Your task to perform on an android device: open app "AliExpress" (install if not already installed) and enter user name: "orangutan@inbox.com" and password: "Lyons" Image 0: 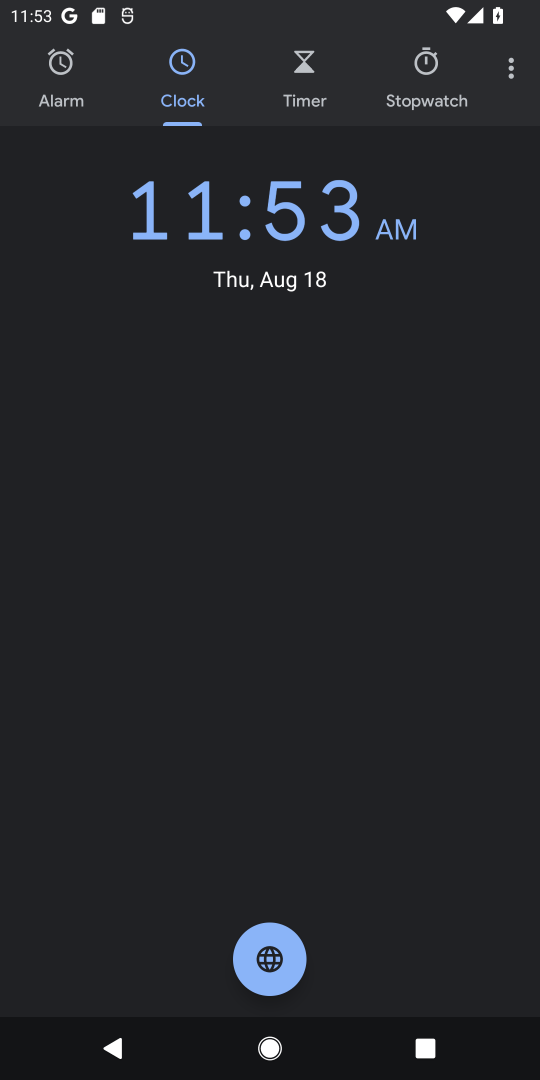
Step 0: press home button
Your task to perform on an android device: open app "AliExpress" (install if not already installed) and enter user name: "orangutan@inbox.com" and password: "Lyons" Image 1: 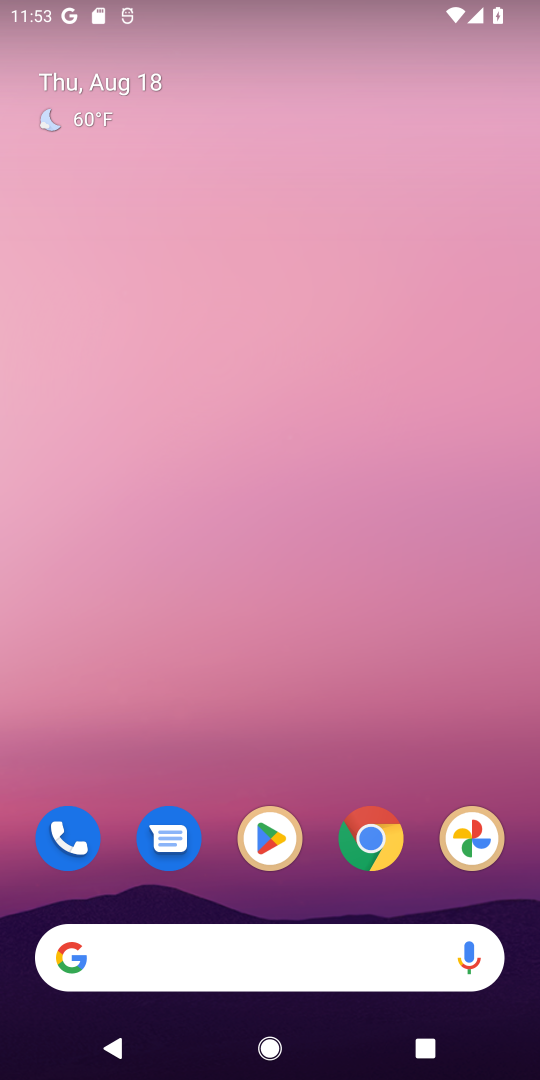
Step 1: click (256, 833)
Your task to perform on an android device: open app "AliExpress" (install if not already installed) and enter user name: "orangutan@inbox.com" and password: "Lyons" Image 2: 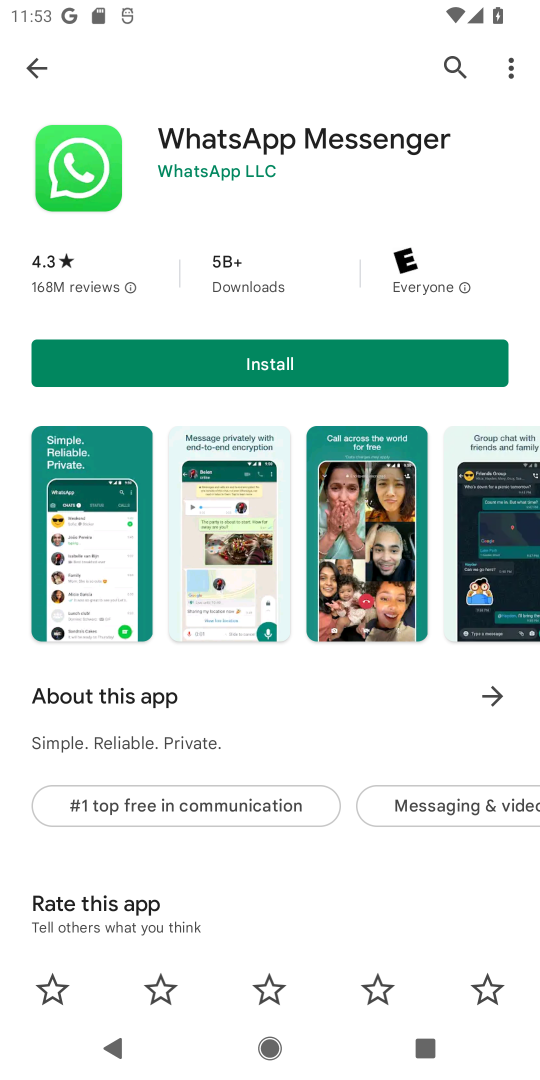
Step 2: click (443, 65)
Your task to perform on an android device: open app "AliExpress" (install if not already installed) and enter user name: "orangutan@inbox.com" and password: "Lyons" Image 3: 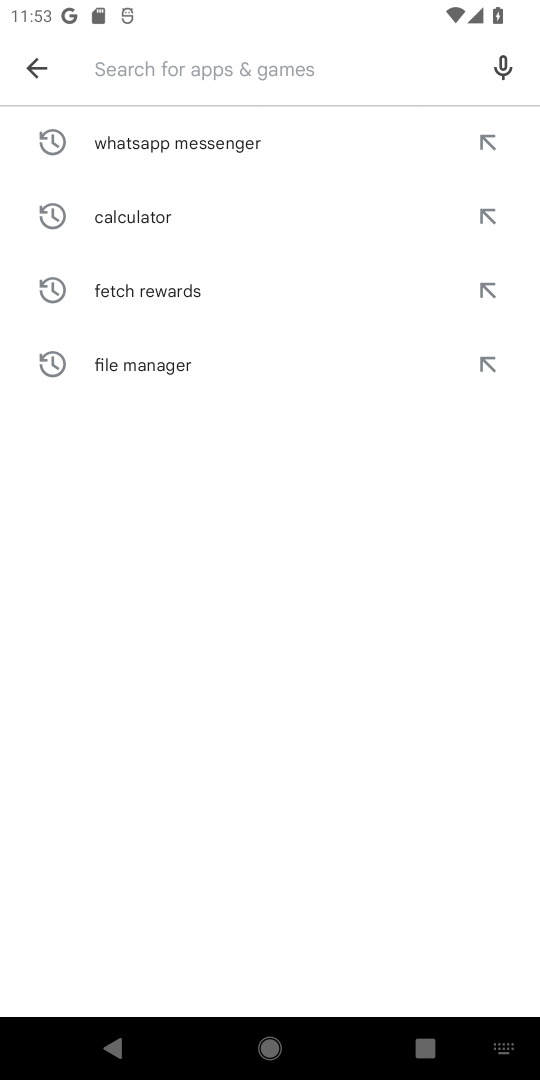
Step 3: type "AliExpress"
Your task to perform on an android device: open app "AliExpress" (install if not already installed) and enter user name: "orangutan@inbox.com" and password: "Lyons" Image 4: 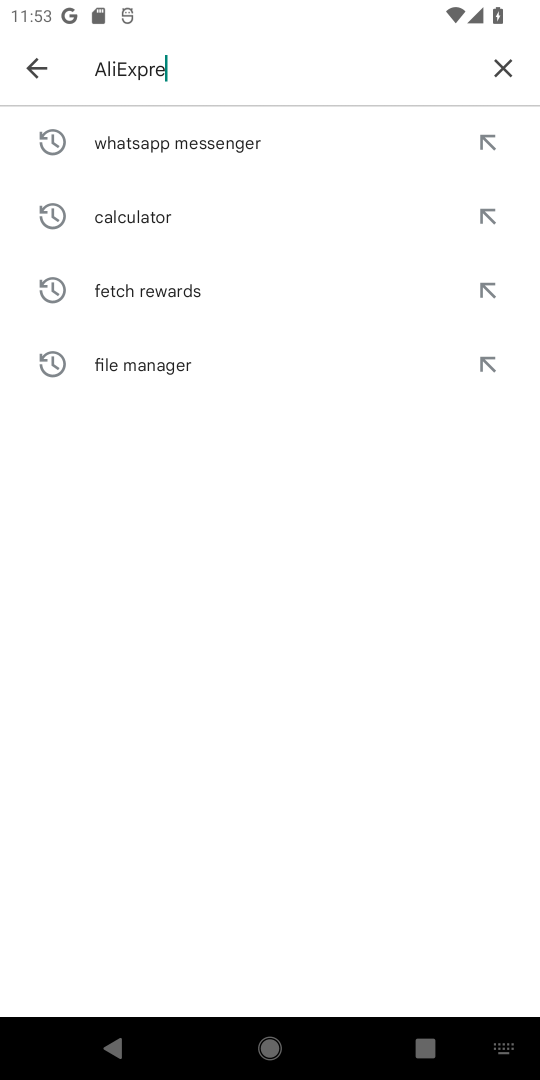
Step 4: type ""
Your task to perform on an android device: open app "AliExpress" (install if not already installed) and enter user name: "orangutan@inbox.com" and password: "Lyons" Image 5: 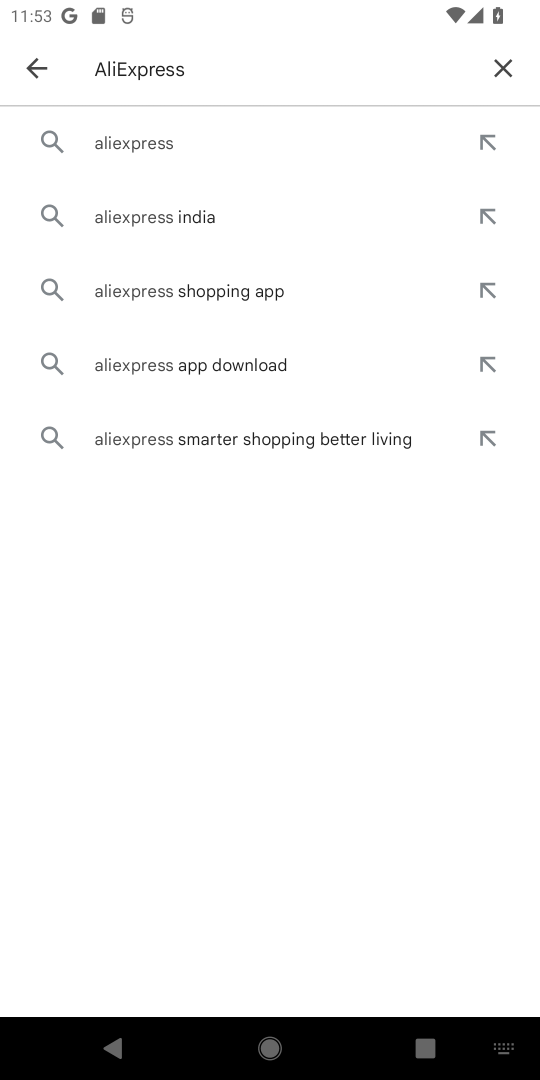
Step 5: click (113, 155)
Your task to perform on an android device: open app "AliExpress" (install if not already installed) and enter user name: "orangutan@inbox.com" and password: "Lyons" Image 6: 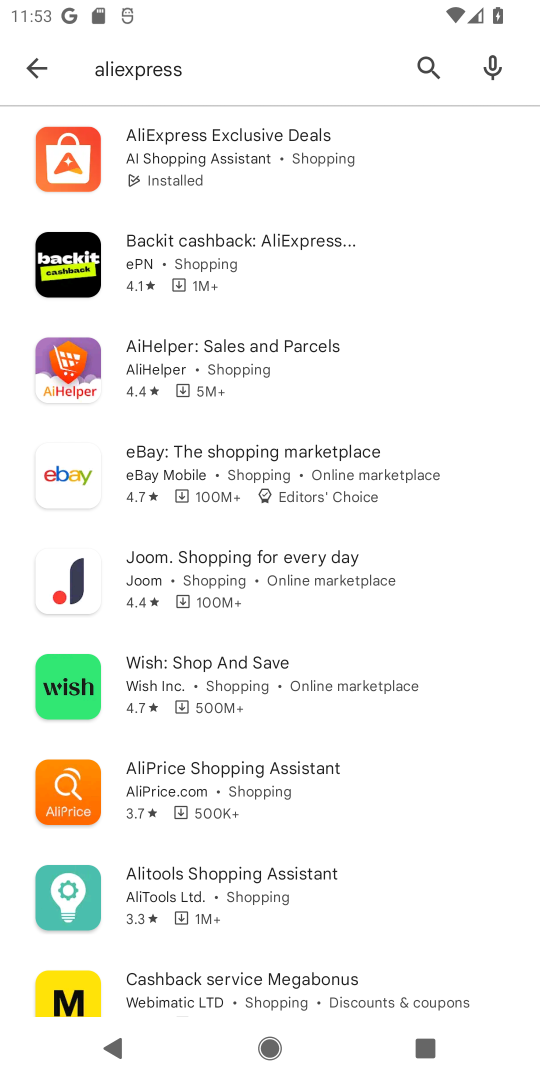
Step 6: click (236, 134)
Your task to perform on an android device: open app "AliExpress" (install if not already installed) and enter user name: "orangutan@inbox.com" and password: "Lyons" Image 7: 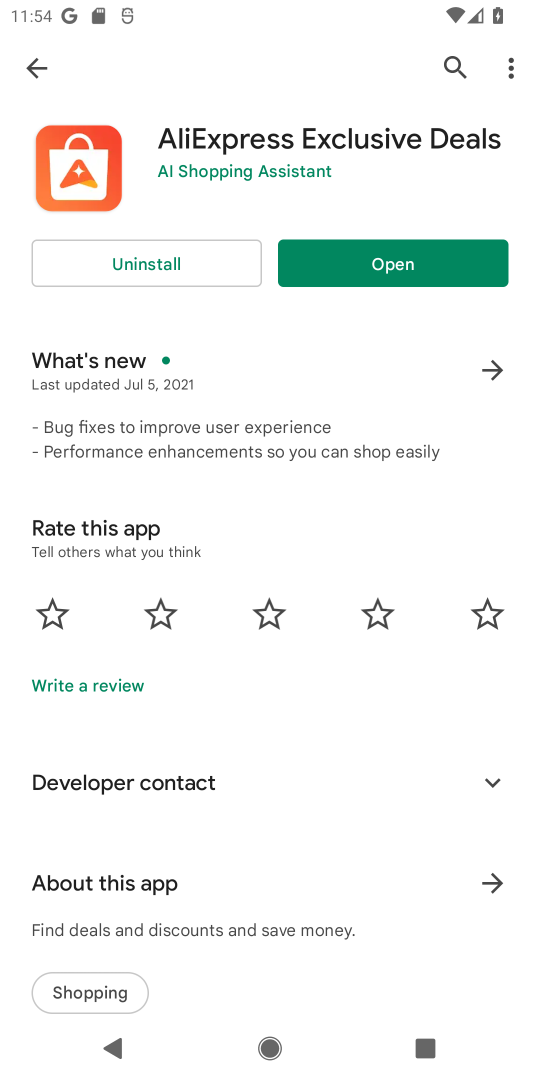
Step 7: click (393, 259)
Your task to perform on an android device: open app "AliExpress" (install if not already installed) and enter user name: "orangutan@inbox.com" and password: "Lyons" Image 8: 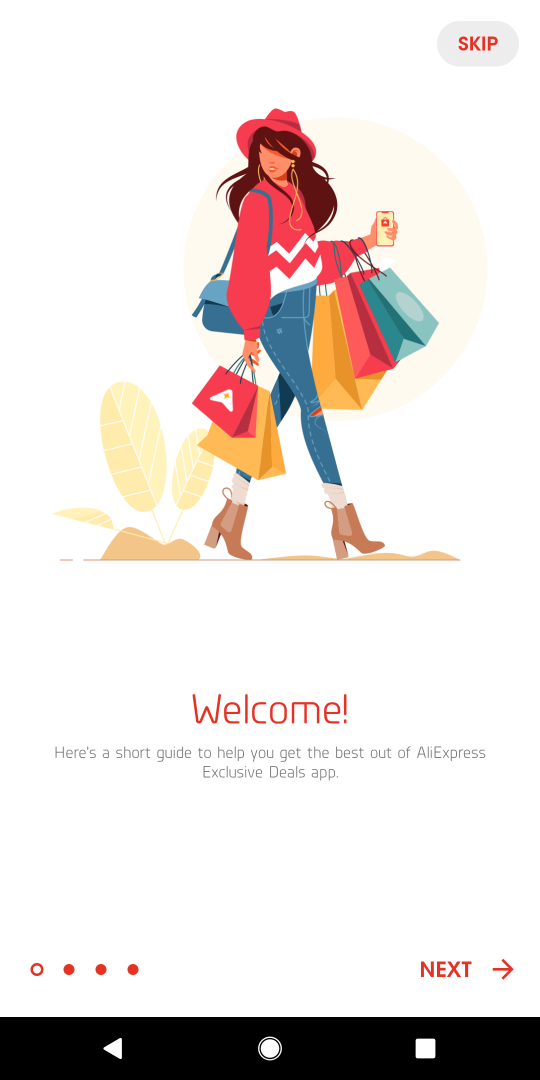
Step 8: task complete